Your task to perform on an android device: Open eBay Image 0: 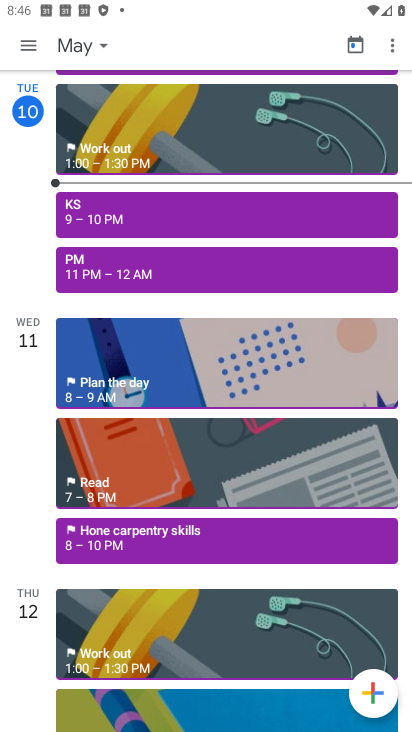
Step 0: press home button
Your task to perform on an android device: Open eBay Image 1: 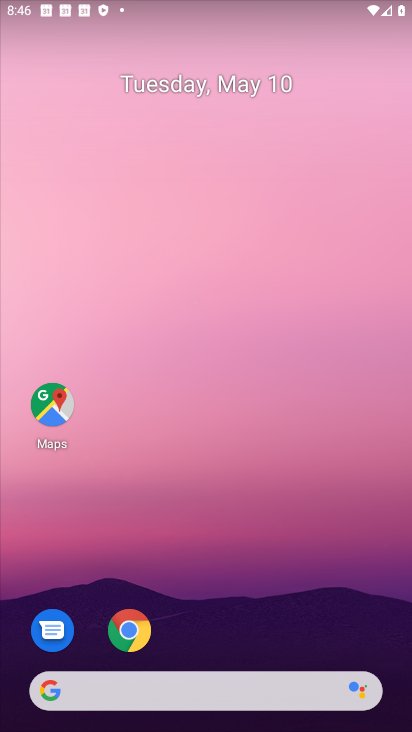
Step 1: click (101, 696)
Your task to perform on an android device: Open eBay Image 2: 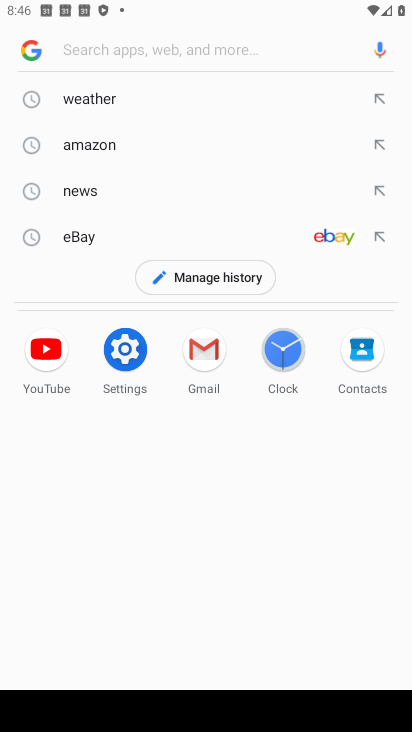
Step 2: click (81, 229)
Your task to perform on an android device: Open eBay Image 3: 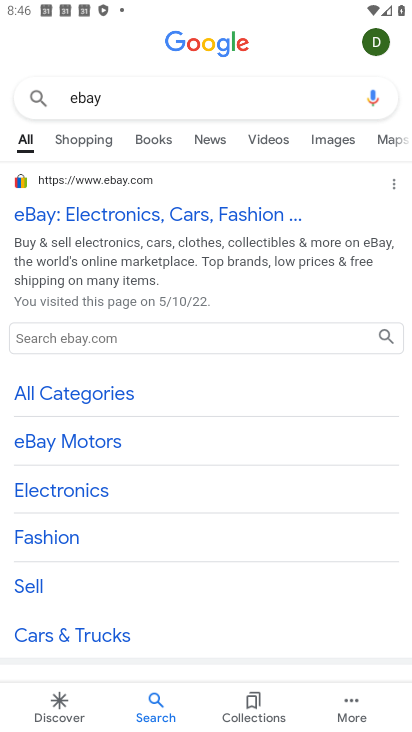
Step 3: click (118, 176)
Your task to perform on an android device: Open eBay Image 4: 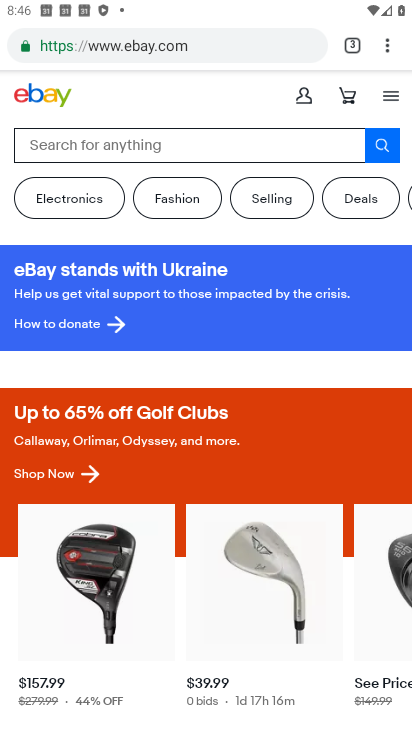
Step 4: task complete